Your task to perform on an android device: Go to Google Image 0: 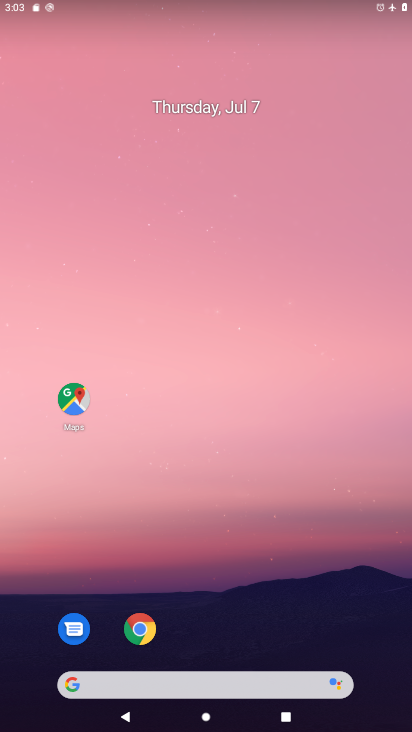
Step 0: drag from (267, 576) to (265, 264)
Your task to perform on an android device: Go to Google Image 1: 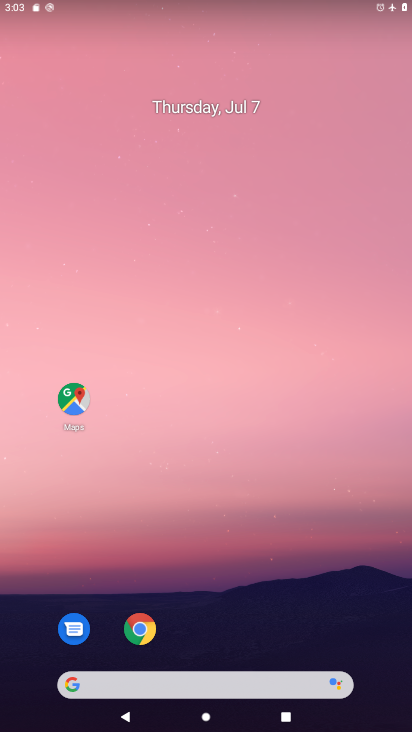
Step 1: drag from (287, 610) to (299, 314)
Your task to perform on an android device: Go to Google Image 2: 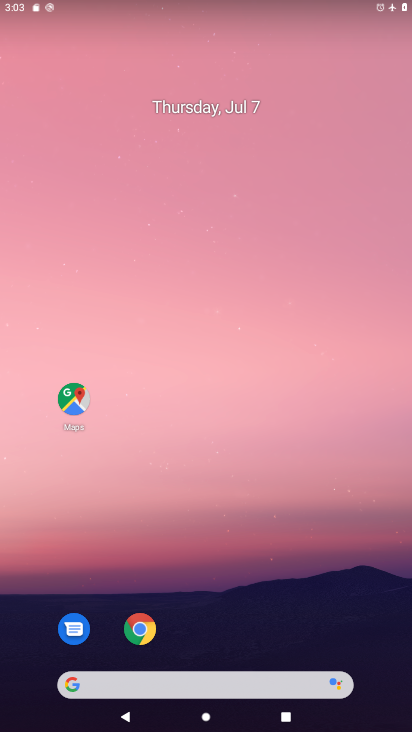
Step 2: drag from (259, 617) to (270, 0)
Your task to perform on an android device: Go to Google Image 3: 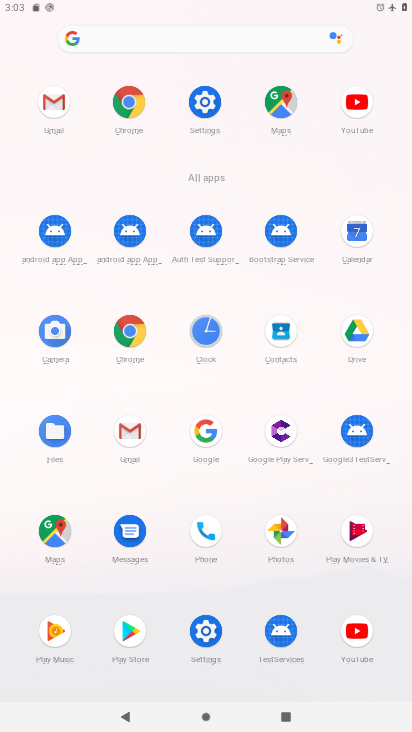
Step 3: click (202, 433)
Your task to perform on an android device: Go to Google Image 4: 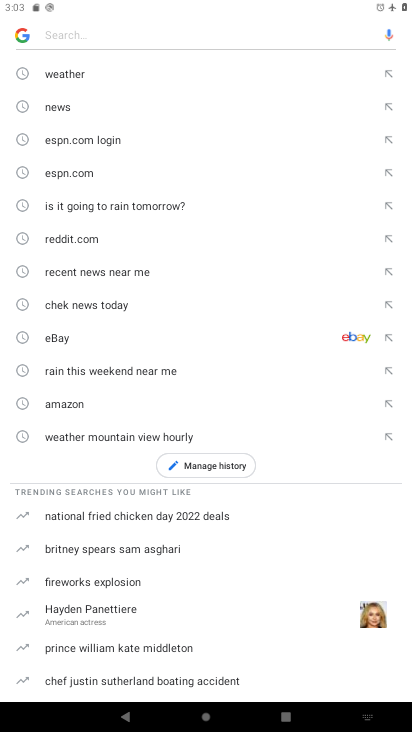
Step 4: task complete